Your task to perform on an android device: Open privacy settings Image 0: 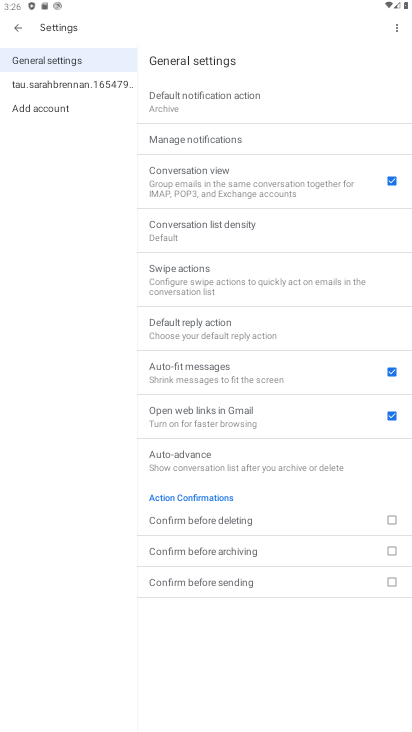
Step 0: press home button
Your task to perform on an android device: Open privacy settings Image 1: 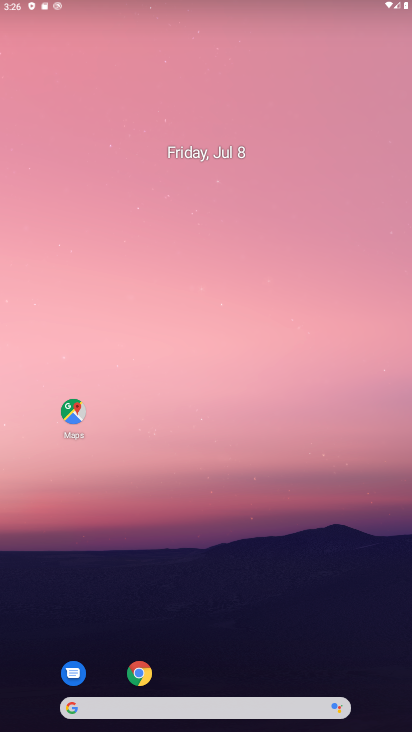
Step 1: drag from (217, 573) to (248, 8)
Your task to perform on an android device: Open privacy settings Image 2: 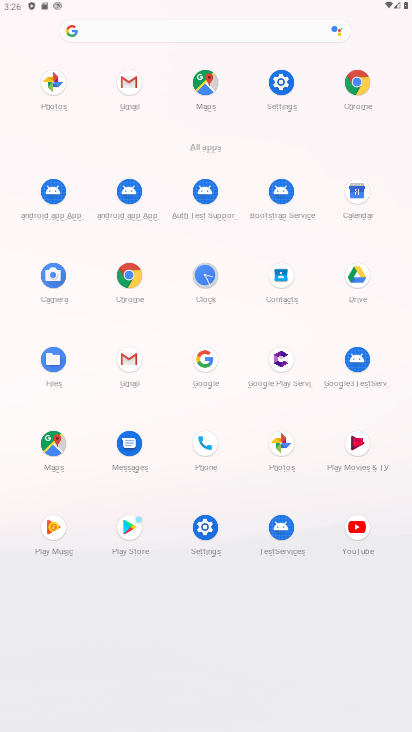
Step 2: click (283, 84)
Your task to perform on an android device: Open privacy settings Image 3: 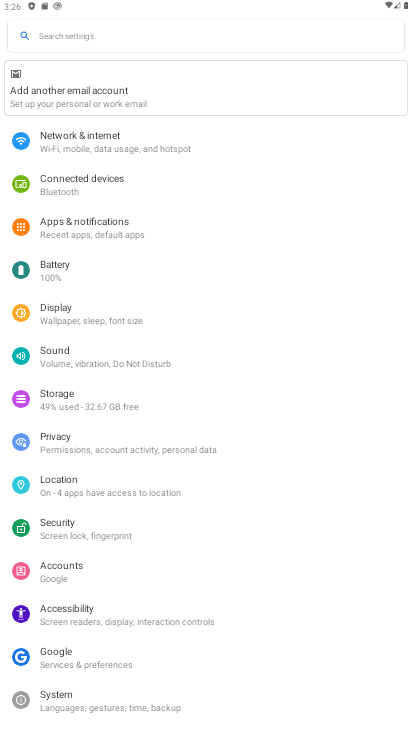
Step 3: click (49, 450)
Your task to perform on an android device: Open privacy settings Image 4: 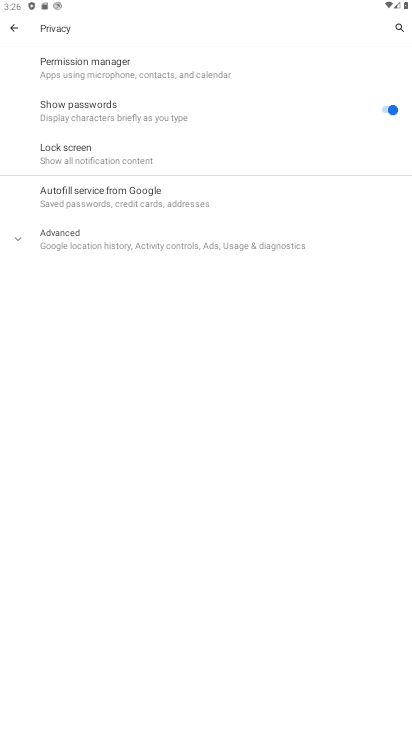
Step 4: task complete